Your task to perform on an android device: turn on location history Image 0: 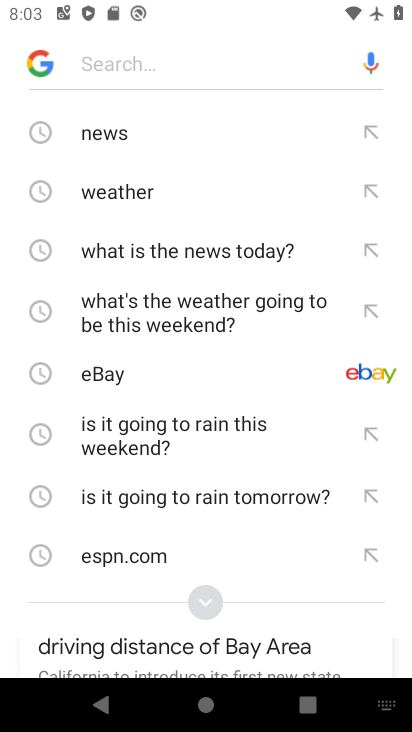
Step 0: press back button
Your task to perform on an android device: turn on location history Image 1: 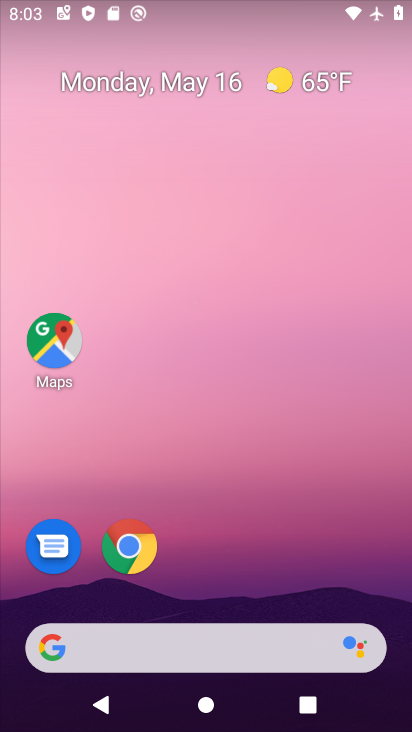
Step 1: drag from (279, 596) to (295, 78)
Your task to perform on an android device: turn on location history Image 2: 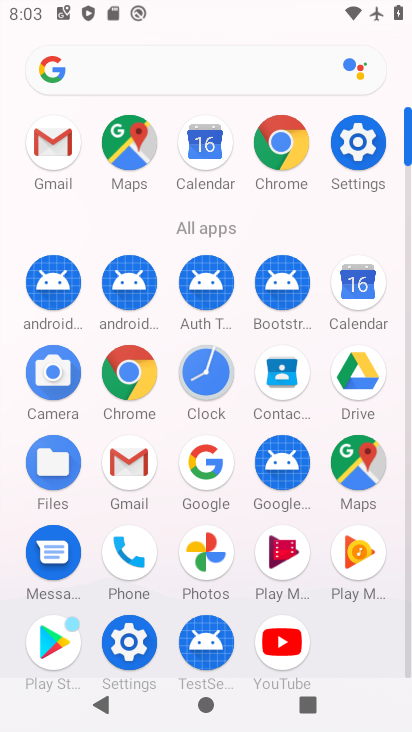
Step 2: click (353, 160)
Your task to perform on an android device: turn on location history Image 3: 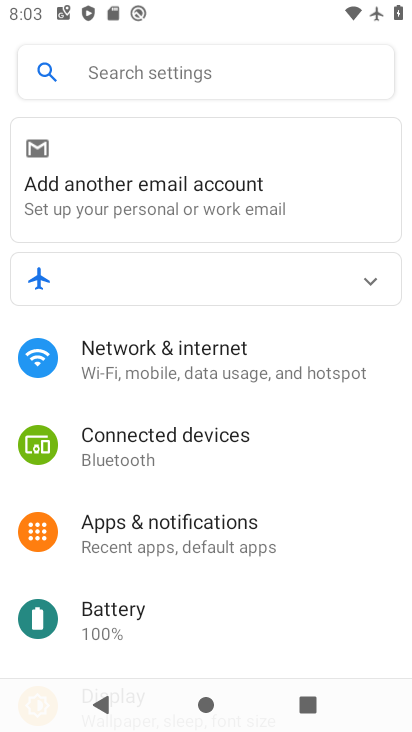
Step 3: drag from (214, 615) to (249, 317)
Your task to perform on an android device: turn on location history Image 4: 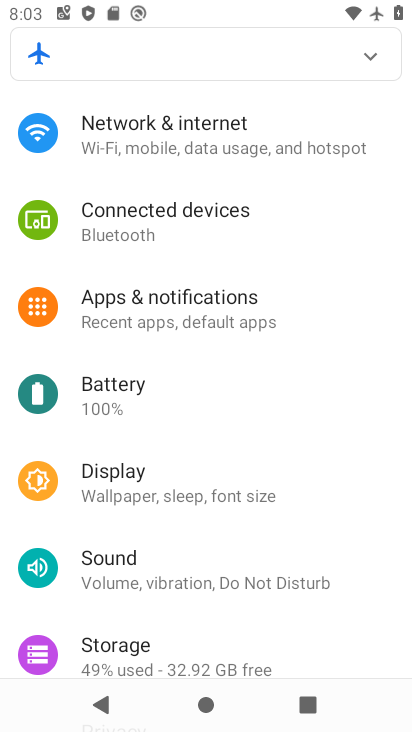
Step 4: drag from (173, 612) to (211, 267)
Your task to perform on an android device: turn on location history Image 5: 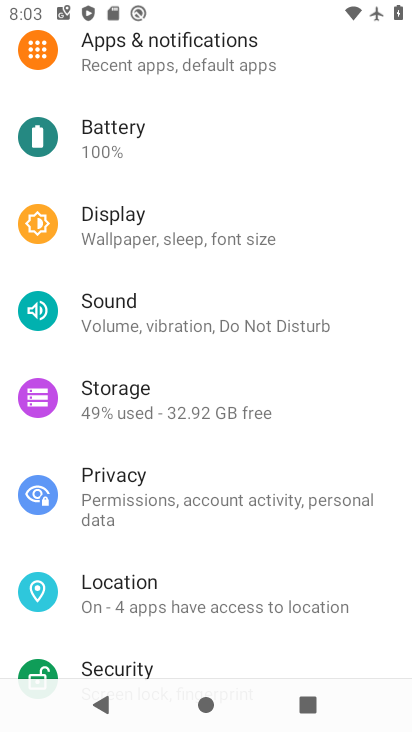
Step 5: click (217, 595)
Your task to perform on an android device: turn on location history Image 6: 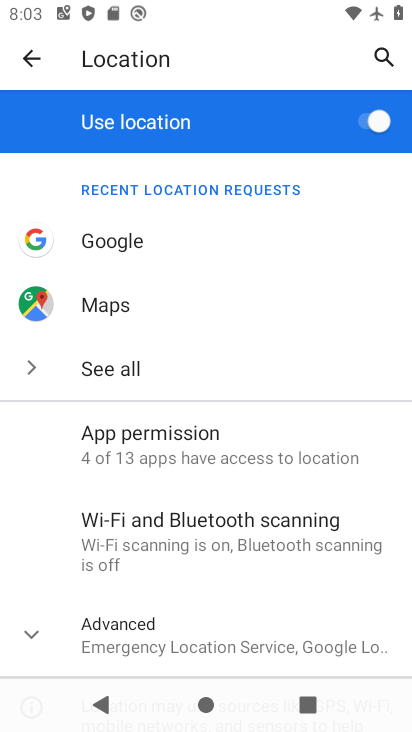
Step 6: click (205, 607)
Your task to perform on an android device: turn on location history Image 7: 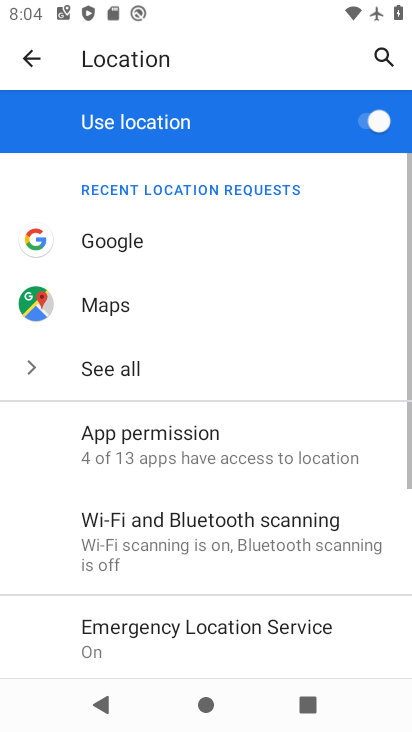
Step 7: drag from (220, 577) to (240, 180)
Your task to perform on an android device: turn on location history Image 8: 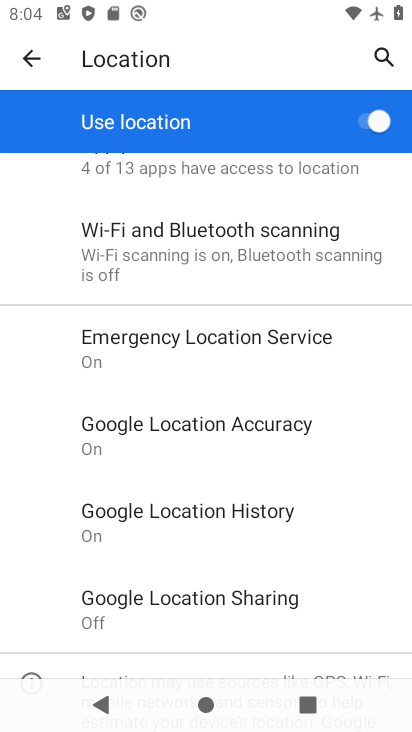
Step 8: click (228, 501)
Your task to perform on an android device: turn on location history Image 9: 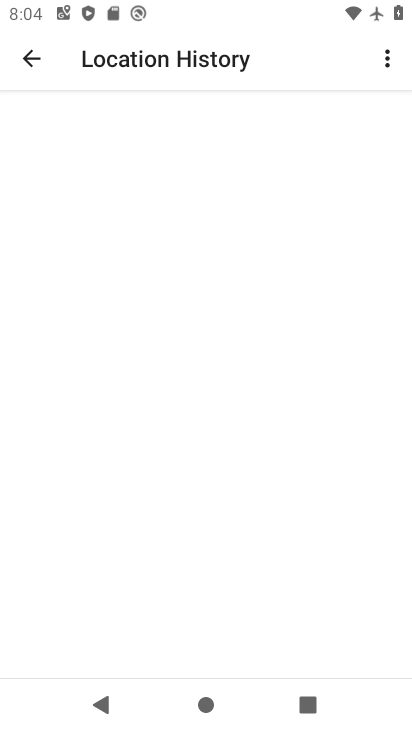
Step 9: task complete